Your task to perform on an android device: see creations saved in the google photos Image 0: 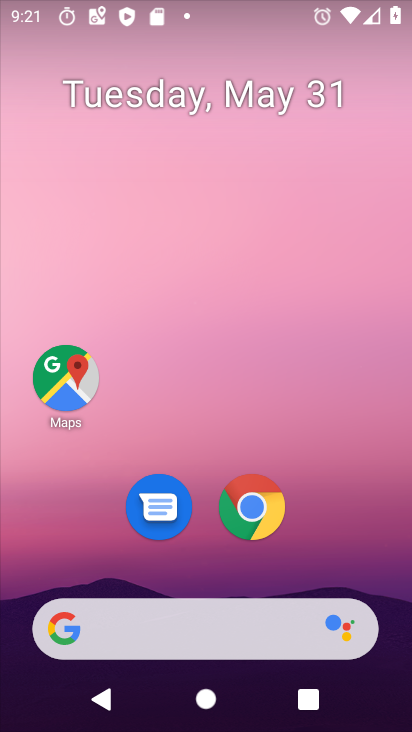
Step 0: drag from (348, 582) to (295, 3)
Your task to perform on an android device: see creations saved in the google photos Image 1: 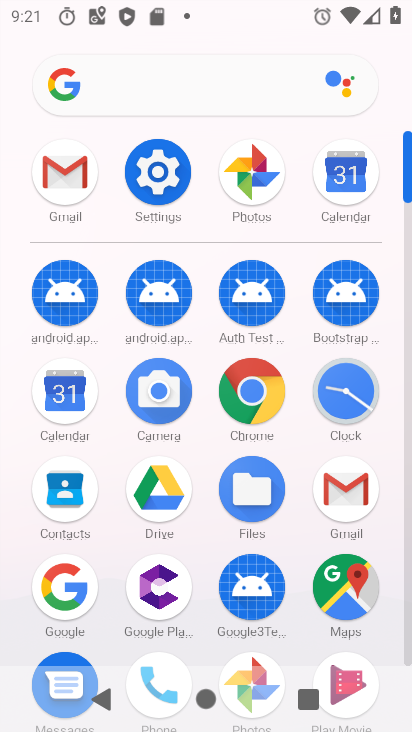
Step 1: click (249, 170)
Your task to perform on an android device: see creations saved in the google photos Image 2: 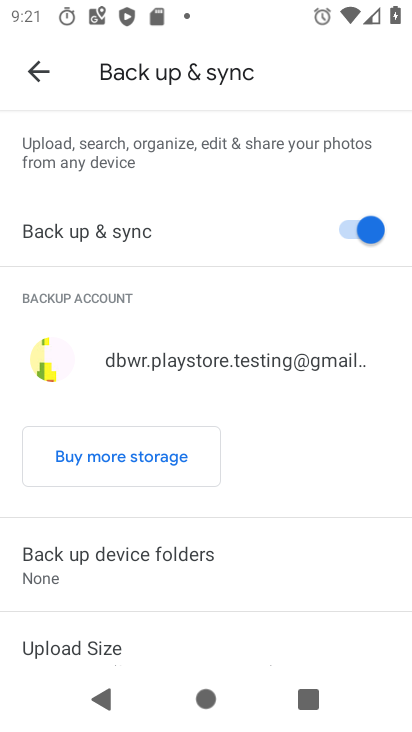
Step 2: click (40, 73)
Your task to perform on an android device: see creations saved in the google photos Image 3: 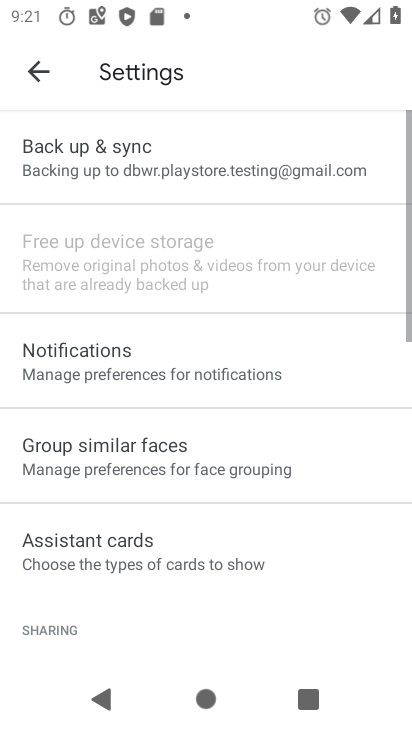
Step 3: click (40, 73)
Your task to perform on an android device: see creations saved in the google photos Image 4: 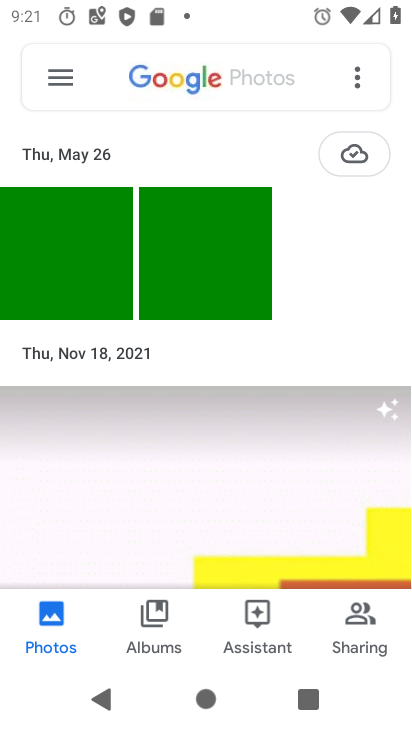
Step 4: click (158, 79)
Your task to perform on an android device: see creations saved in the google photos Image 5: 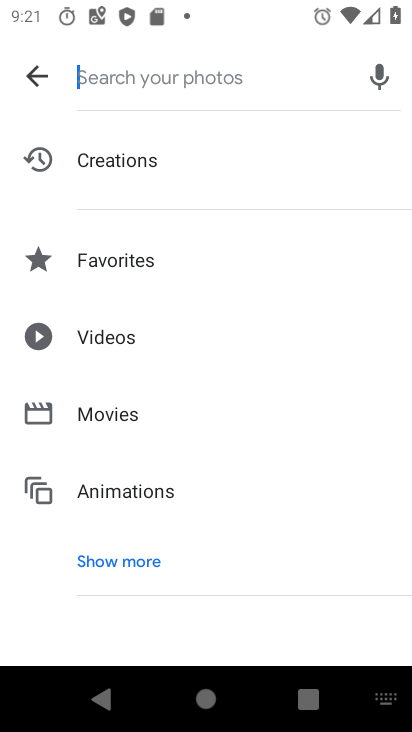
Step 5: click (101, 562)
Your task to perform on an android device: see creations saved in the google photos Image 6: 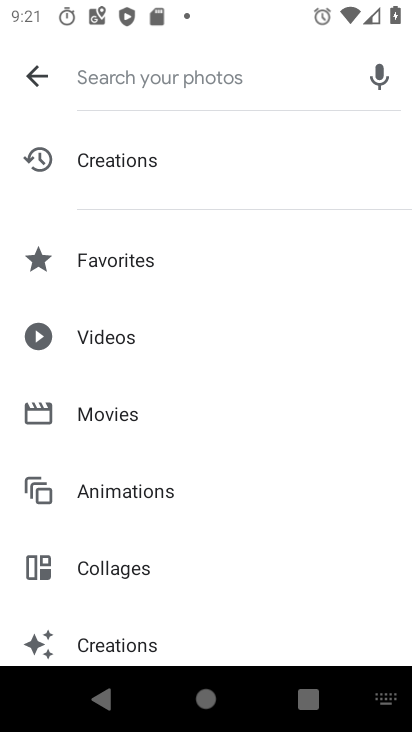
Step 6: drag from (233, 583) to (236, 287)
Your task to perform on an android device: see creations saved in the google photos Image 7: 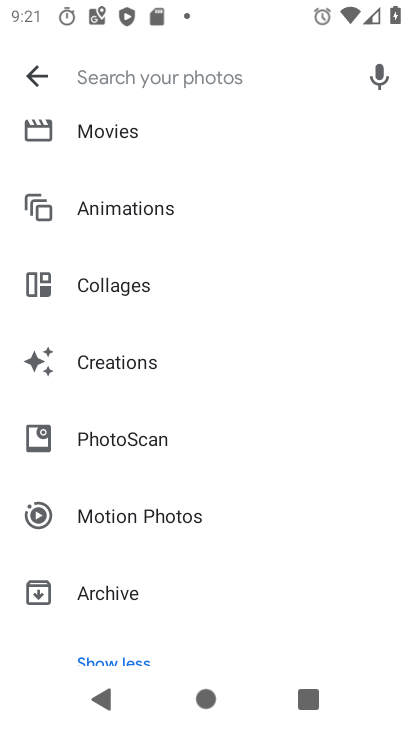
Step 7: click (96, 368)
Your task to perform on an android device: see creations saved in the google photos Image 8: 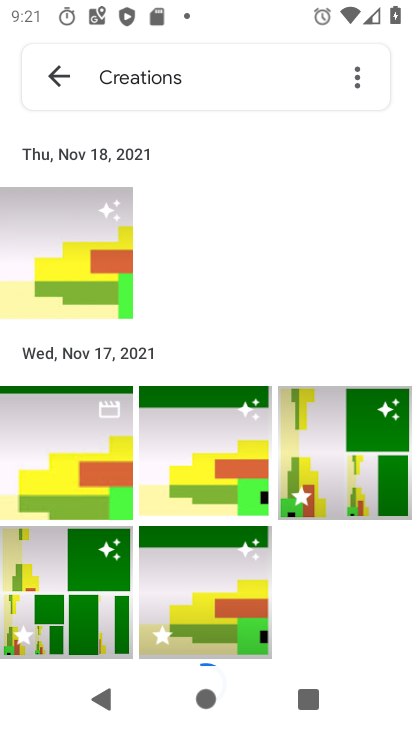
Step 8: task complete